Your task to perform on an android device: toggle priority inbox in the gmail app Image 0: 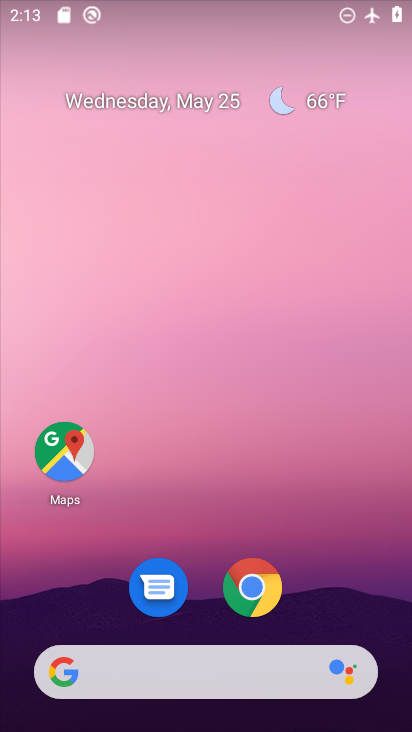
Step 0: drag from (365, 592) to (365, 96)
Your task to perform on an android device: toggle priority inbox in the gmail app Image 1: 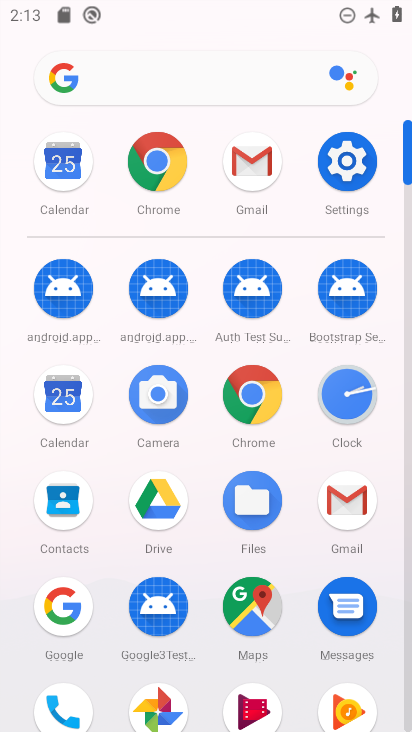
Step 1: click (354, 521)
Your task to perform on an android device: toggle priority inbox in the gmail app Image 2: 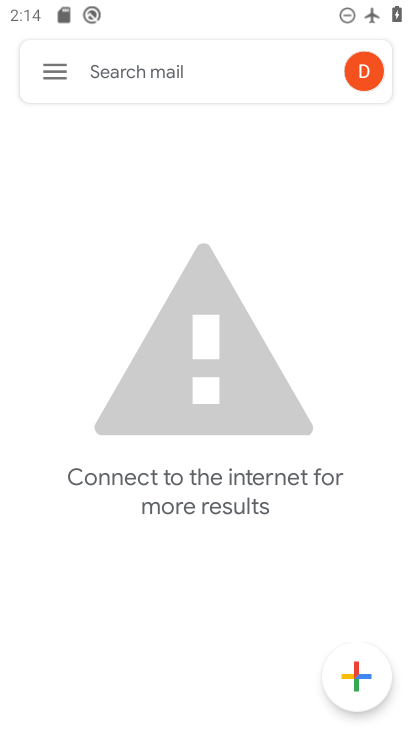
Step 2: click (57, 86)
Your task to perform on an android device: toggle priority inbox in the gmail app Image 3: 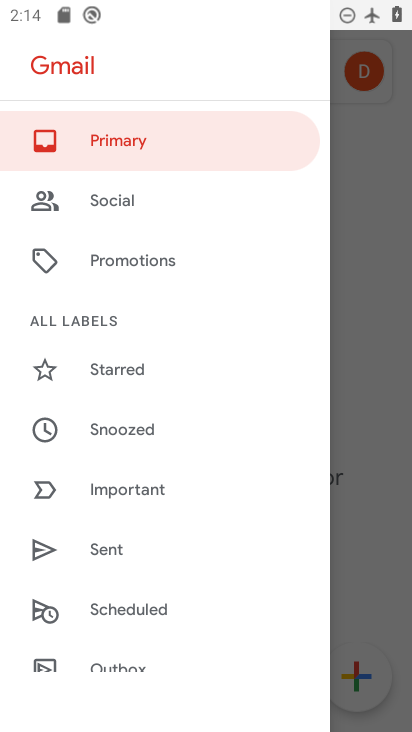
Step 3: drag from (248, 553) to (246, 387)
Your task to perform on an android device: toggle priority inbox in the gmail app Image 4: 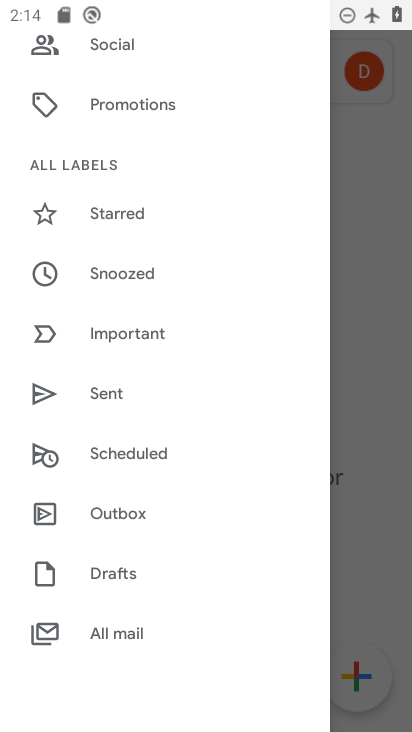
Step 4: drag from (181, 626) to (199, 346)
Your task to perform on an android device: toggle priority inbox in the gmail app Image 5: 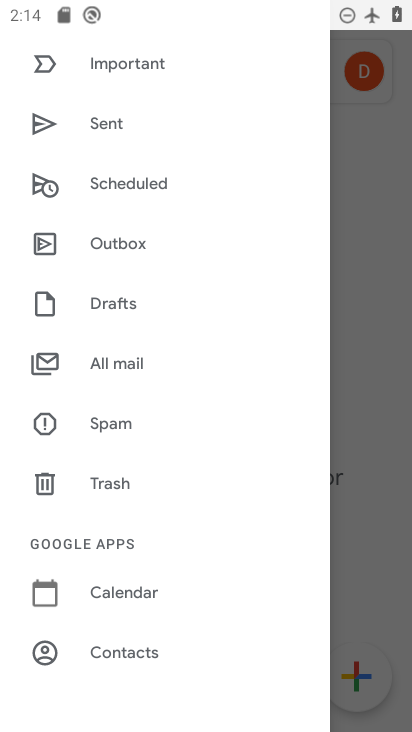
Step 5: drag from (224, 599) to (231, 398)
Your task to perform on an android device: toggle priority inbox in the gmail app Image 6: 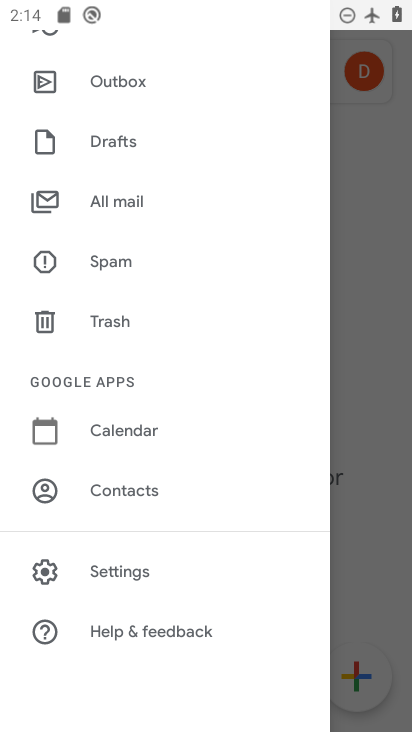
Step 6: click (138, 581)
Your task to perform on an android device: toggle priority inbox in the gmail app Image 7: 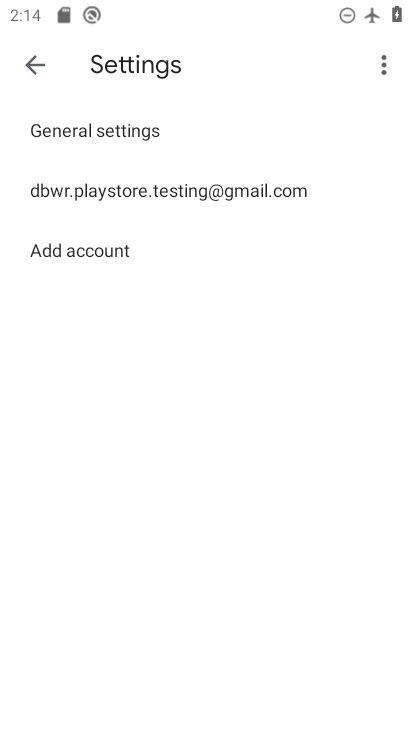
Step 7: click (237, 197)
Your task to perform on an android device: toggle priority inbox in the gmail app Image 8: 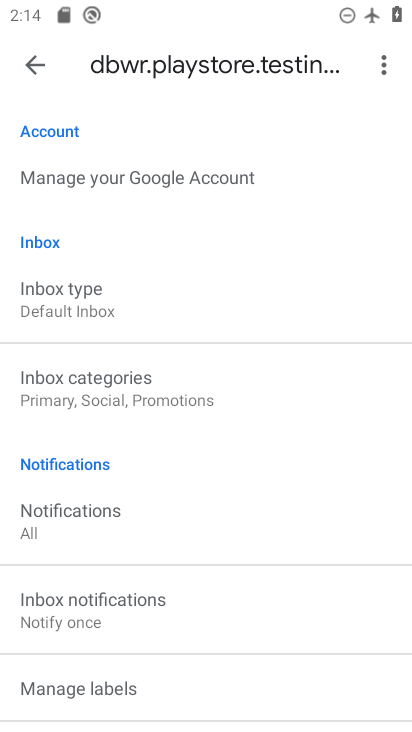
Step 8: drag from (271, 547) to (294, 377)
Your task to perform on an android device: toggle priority inbox in the gmail app Image 9: 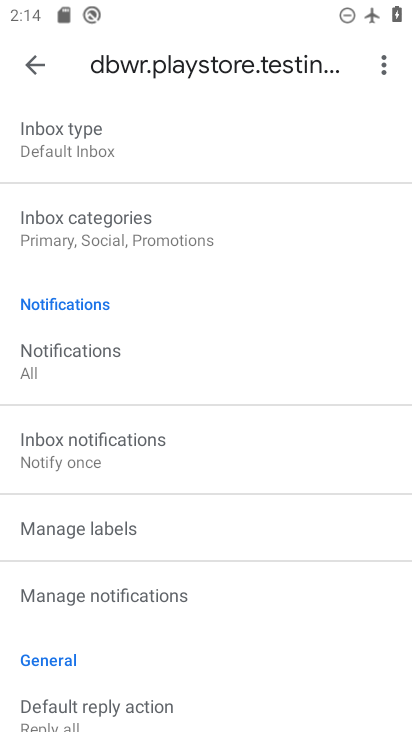
Step 9: drag from (298, 573) to (300, 468)
Your task to perform on an android device: toggle priority inbox in the gmail app Image 10: 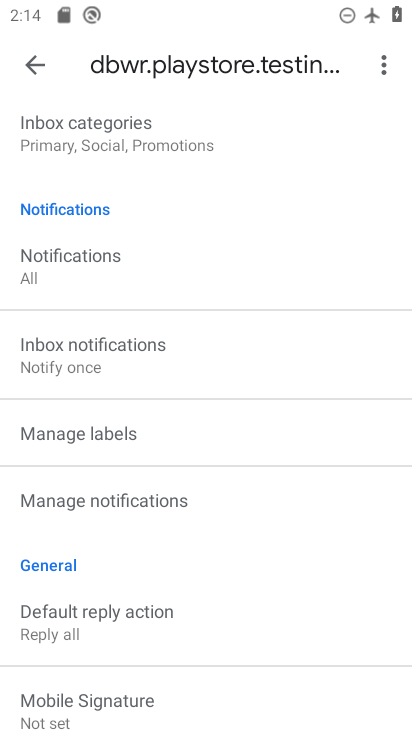
Step 10: drag from (302, 580) to (308, 407)
Your task to perform on an android device: toggle priority inbox in the gmail app Image 11: 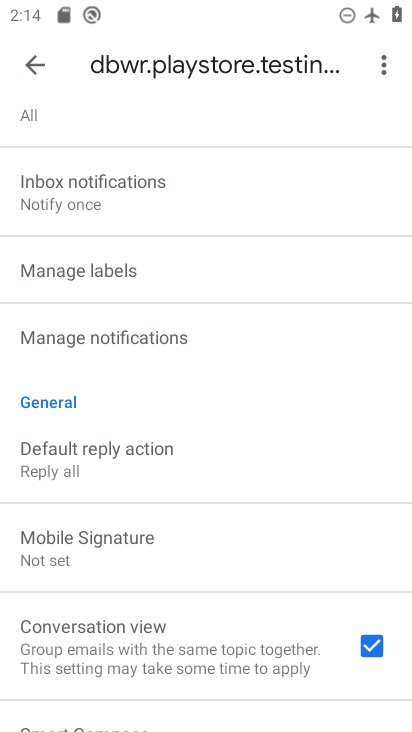
Step 11: drag from (305, 624) to (305, 353)
Your task to perform on an android device: toggle priority inbox in the gmail app Image 12: 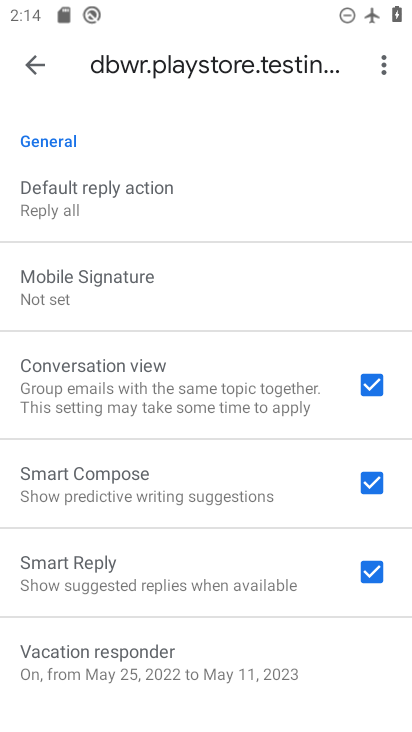
Step 12: drag from (288, 602) to (286, 469)
Your task to perform on an android device: toggle priority inbox in the gmail app Image 13: 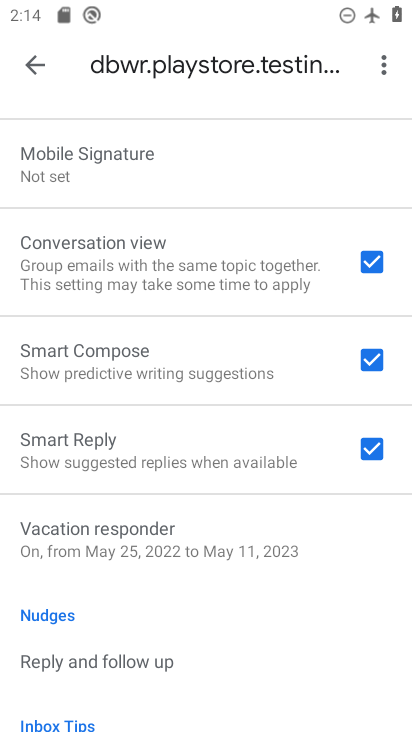
Step 13: drag from (285, 313) to (297, 440)
Your task to perform on an android device: toggle priority inbox in the gmail app Image 14: 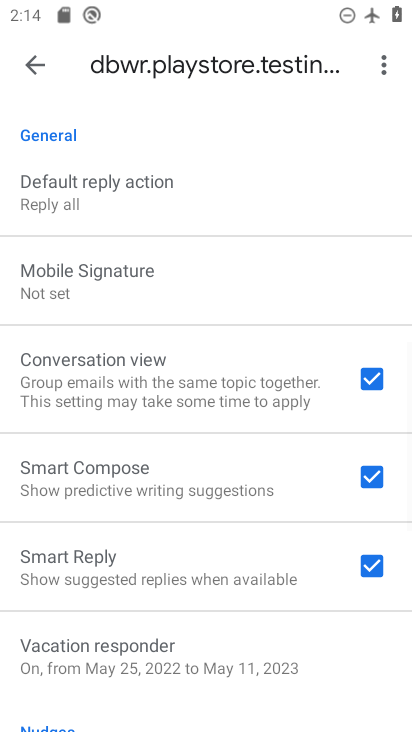
Step 14: drag from (295, 259) to (295, 400)
Your task to perform on an android device: toggle priority inbox in the gmail app Image 15: 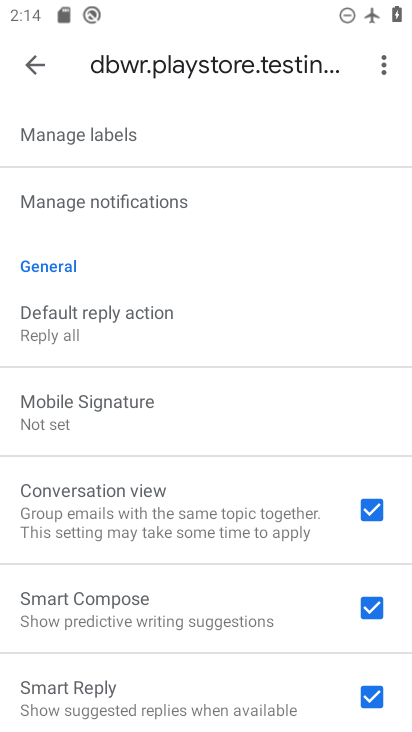
Step 15: drag from (285, 257) to (285, 398)
Your task to perform on an android device: toggle priority inbox in the gmail app Image 16: 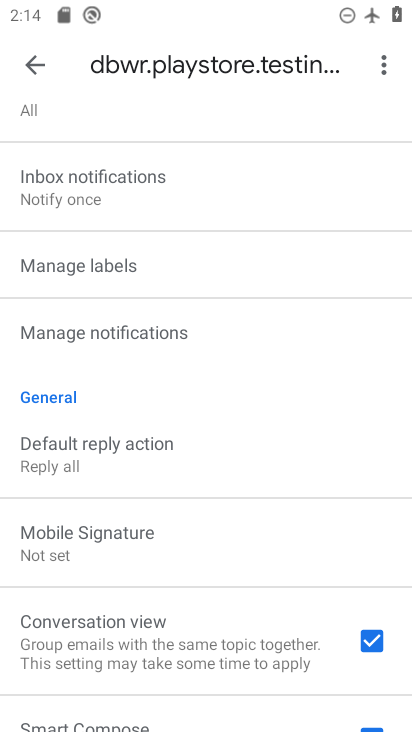
Step 16: drag from (274, 255) to (274, 376)
Your task to perform on an android device: toggle priority inbox in the gmail app Image 17: 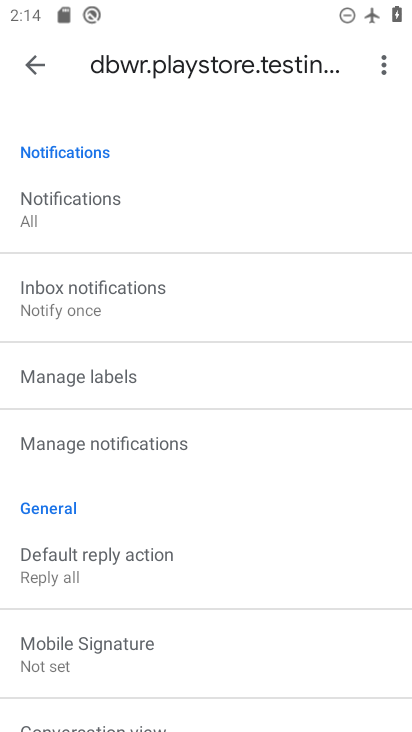
Step 17: drag from (249, 228) to (263, 353)
Your task to perform on an android device: toggle priority inbox in the gmail app Image 18: 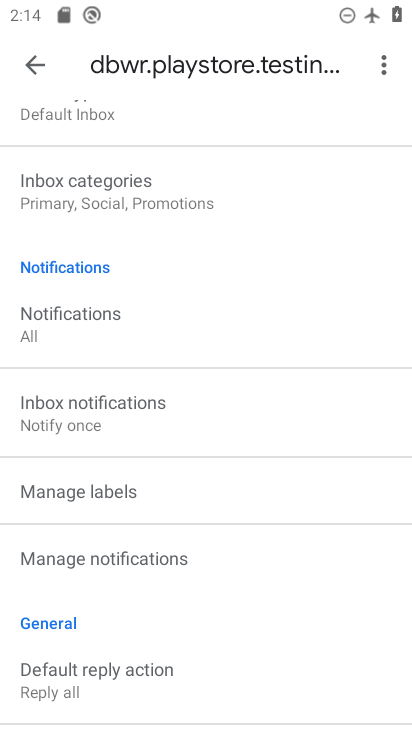
Step 18: drag from (269, 513) to (266, 425)
Your task to perform on an android device: toggle priority inbox in the gmail app Image 19: 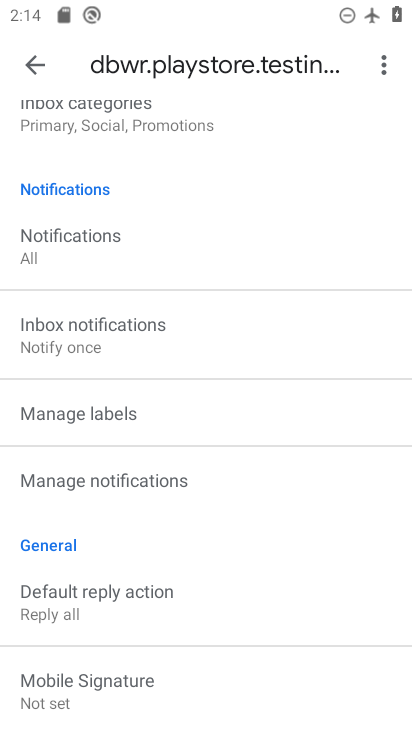
Step 19: drag from (265, 219) to (265, 348)
Your task to perform on an android device: toggle priority inbox in the gmail app Image 20: 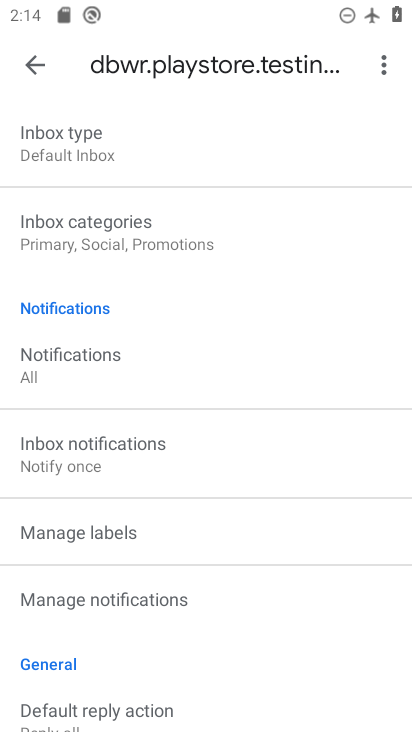
Step 20: drag from (250, 201) to (250, 292)
Your task to perform on an android device: toggle priority inbox in the gmail app Image 21: 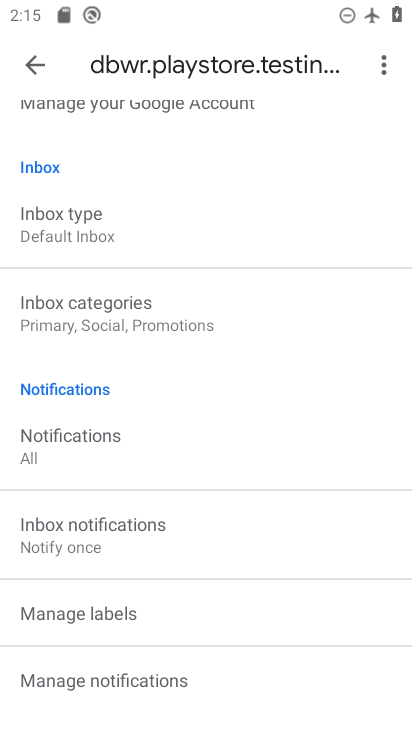
Step 21: click (103, 230)
Your task to perform on an android device: toggle priority inbox in the gmail app Image 22: 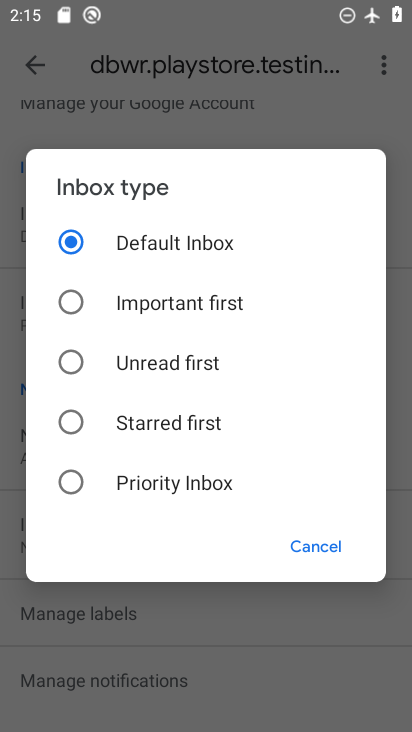
Step 22: click (175, 499)
Your task to perform on an android device: toggle priority inbox in the gmail app Image 23: 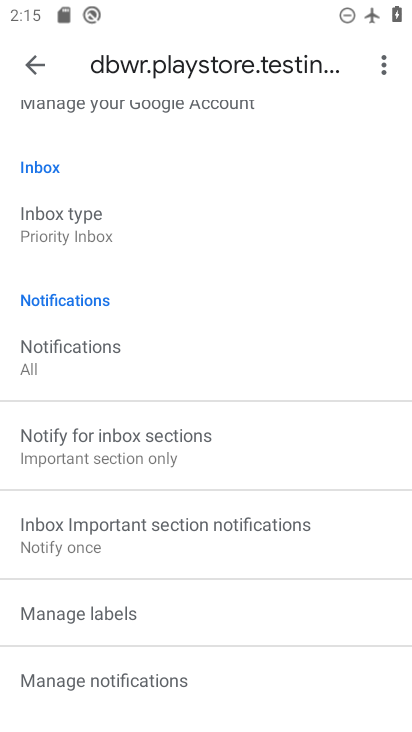
Step 23: task complete